Your task to perform on an android device: change notification settings in the gmail app Image 0: 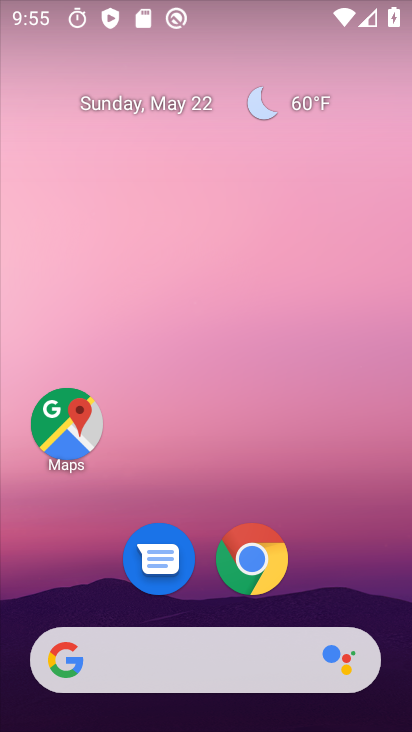
Step 0: drag from (339, 581) to (320, 151)
Your task to perform on an android device: change notification settings in the gmail app Image 1: 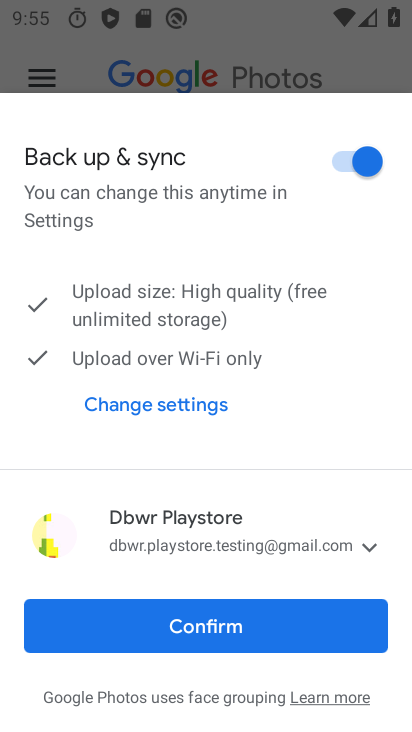
Step 1: press home button
Your task to perform on an android device: change notification settings in the gmail app Image 2: 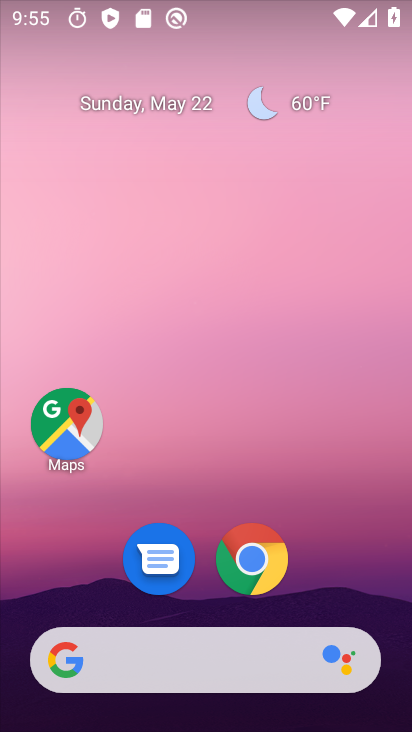
Step 2: drag from (358, 562) to (340, 204)
Your task to perform on an android device: change notification settings in the gmail app Image 3: 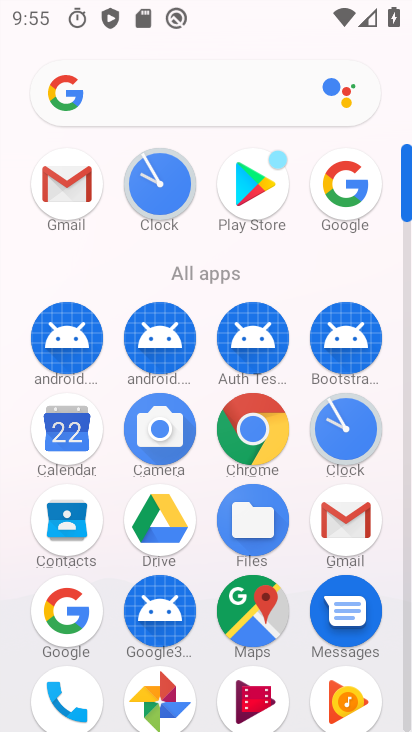
Step 3: click (349, 521)
Your task to perform on an android device: change notification settings in the gmail app Image 4: 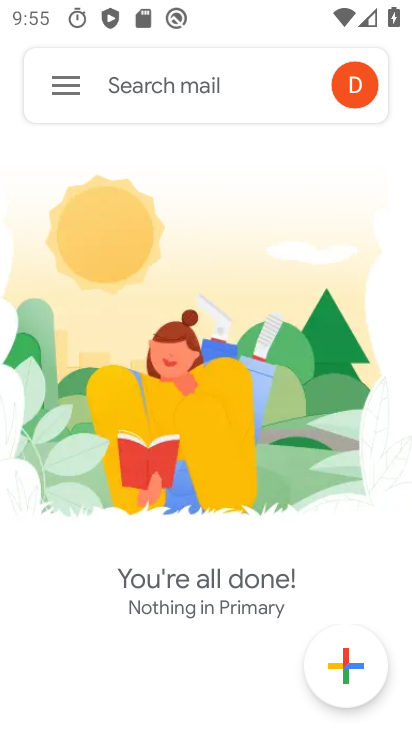
Step 4: click (82, 91)
Your task to perform on an android device: change notification settings in the gmail app Image 5: 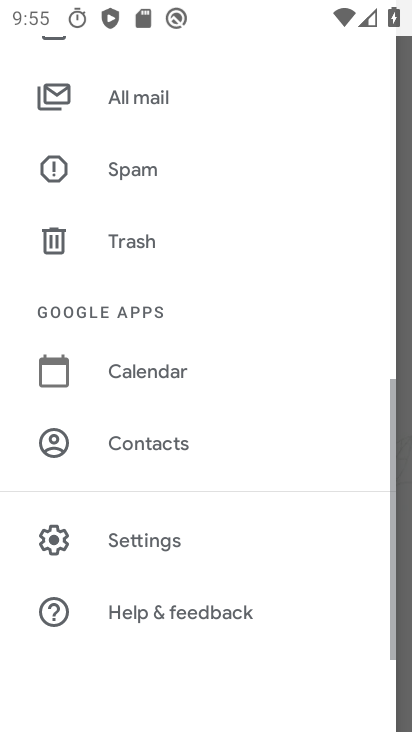
Step 5: click (204, 565)
Your task to perform on an android device: change notification settings in the gmail app Image 6: 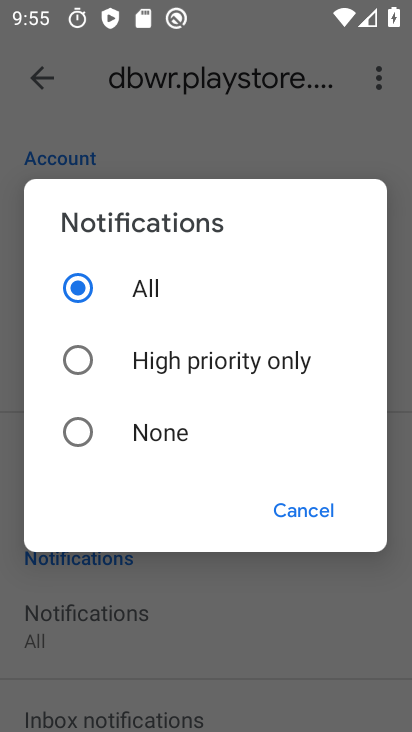
Step 6: click (161, 377)
Your task to perform on an android device: change notification settings in the gmail app Image 7: 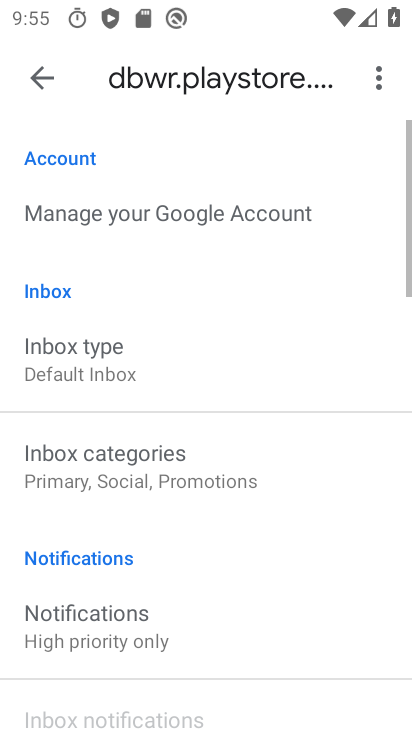
Step 7: task complete